Your task to perform on an android device: How do I get to the nearest Target? Image 0: 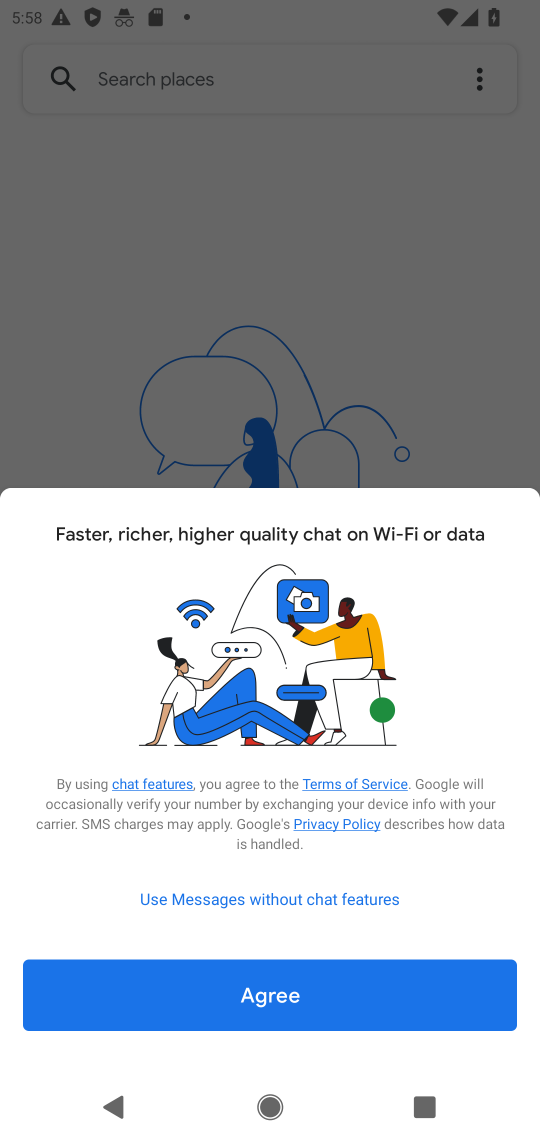
Step 0: press home button
Your task to perform on an android device: How do I get to the nearest Target? Image 1: 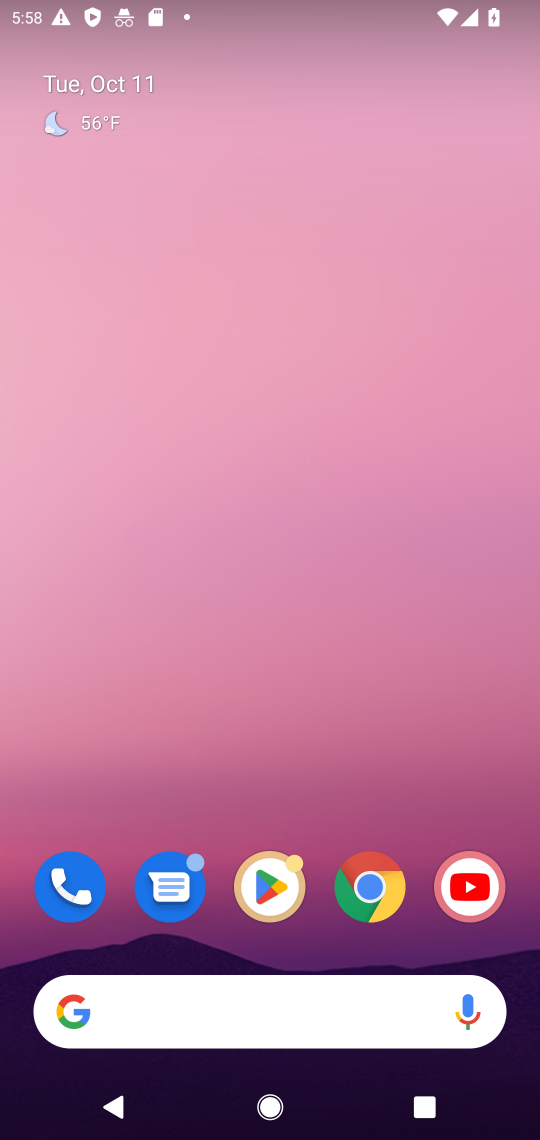
Step 1: click (286, 994)
Your task to perform on an android device: How do I get to the nearest Target? Image 2: 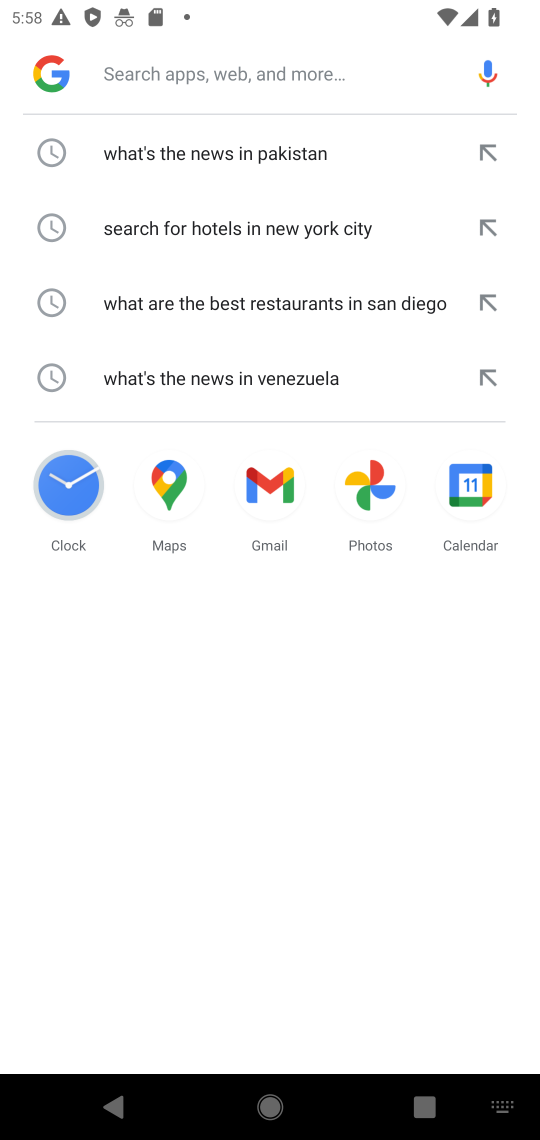
Step 2: type "How do I get to the nearest Target?"
Your task to perform on an android device: How do I get to the nearest Target? Image 3: 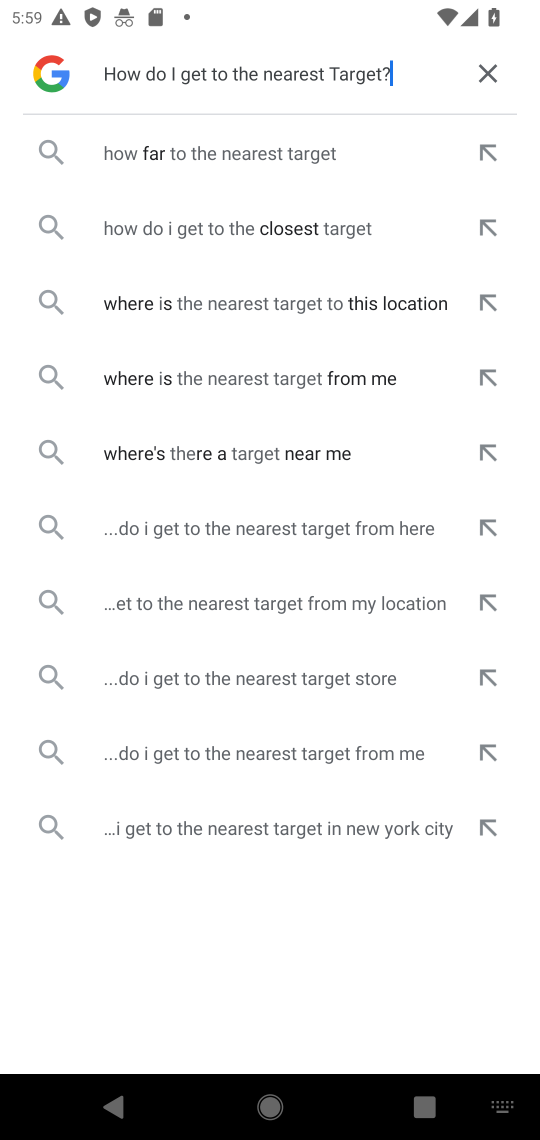
Step 3: click (269, 157)
Your task to perform on an android device: How do I get to the nearest Target? Image 4: 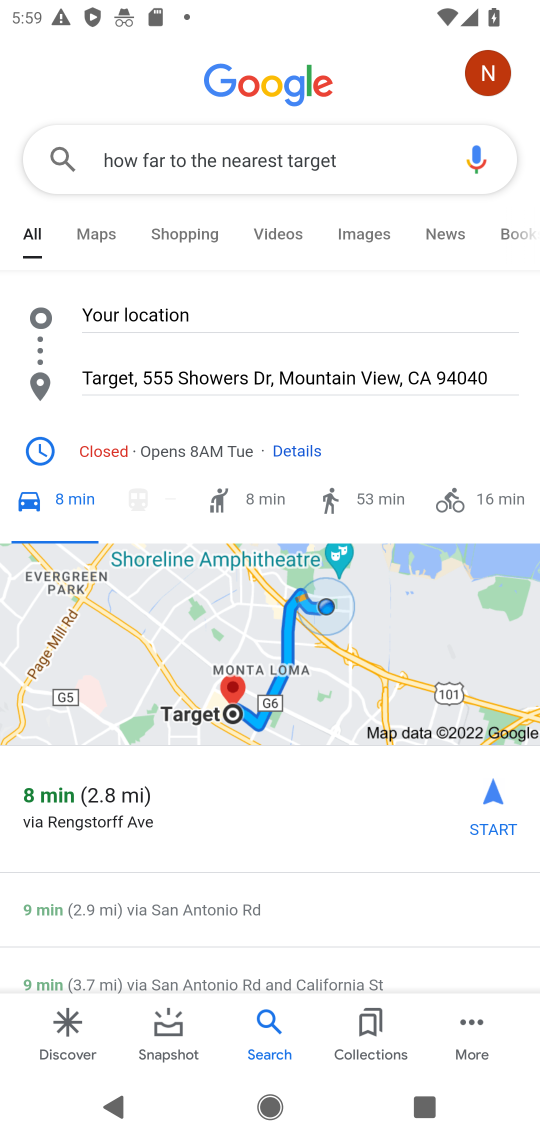
Step 4: task complete